Your task to perform on an android device: stop showing notifications on the lock screen Image 0: 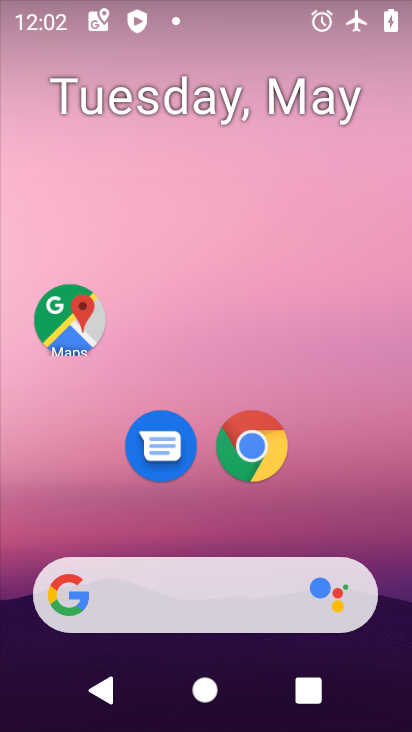
Step 0: drag from (321, 513) to (293, 182)
Your task to perform on an android device: stop showing notifications on the lock screen Image 1: 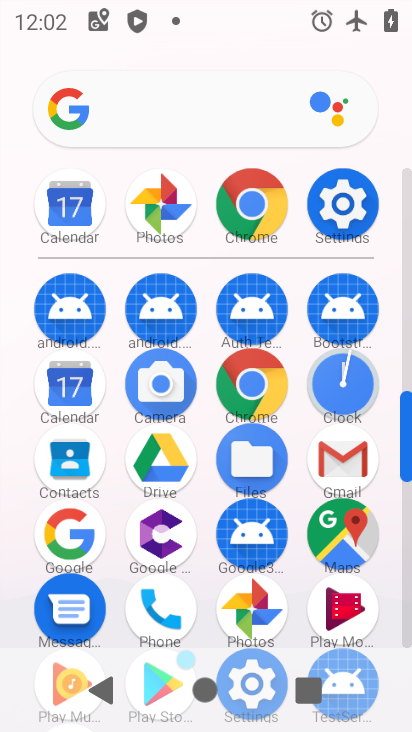
Step 1: click (356, 202)
Your task to perform on an android device: stop showing notifications on the lock screen Image 2: 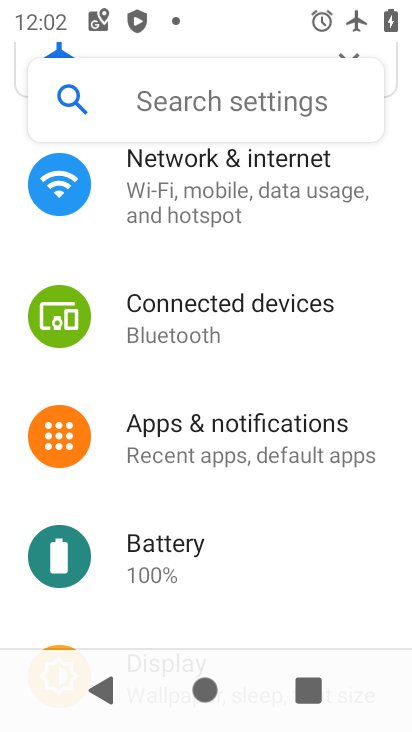
Step 2: drag from (234, 198) to (160, 552)
Your task to perform on an android device: stop showing notifications on the lock screen Image 3: 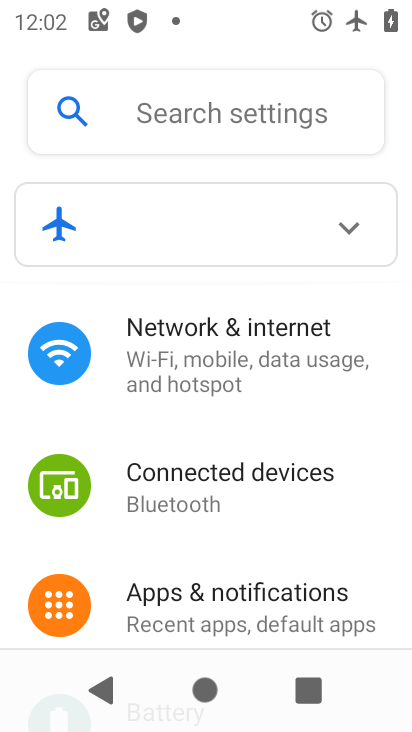
Step 3: drag from (165, 548) to (165, 372)
Your task to perform on an android device: stop showing notifications on the lock screen Image 4: 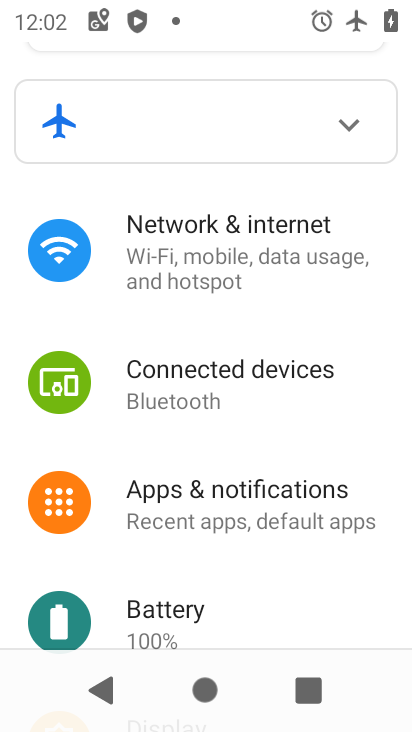
Step 4: click (140, 501)
Your task to perform on an android device: stop showing notifications on the lock screen Image 5: 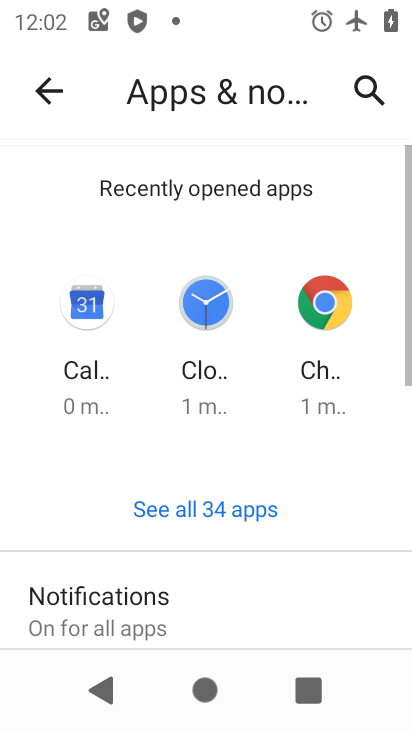
Step 5: drag from (194, 586) to (320, 380)
Your task to perform on an android device: stop showing notifications on the lock screen Image 6: 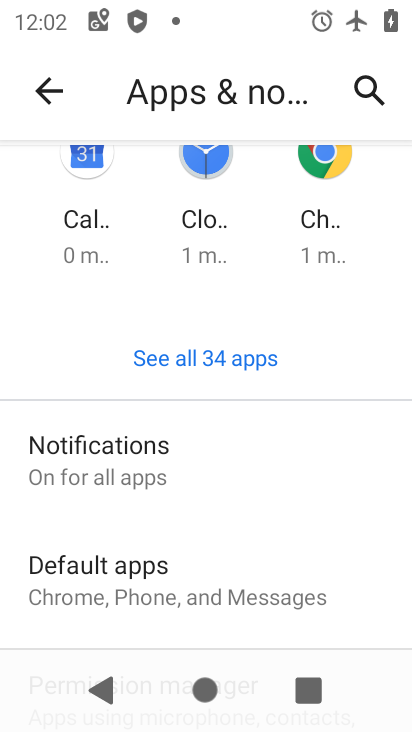
Step 6: click (114, 455)
Your task to perform on an android device: stop showing notifications on the lock screen Image 7: 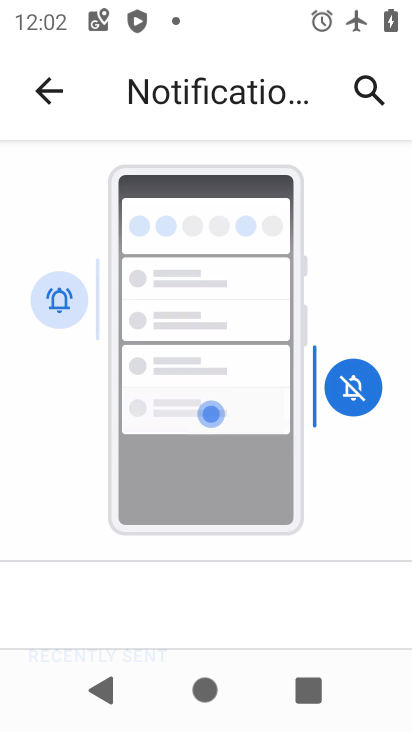
Step 7: drag from (234, 566) to (322, 215)
Your task to perform on an android device: stop showing notifications on the lock screen Image 8: 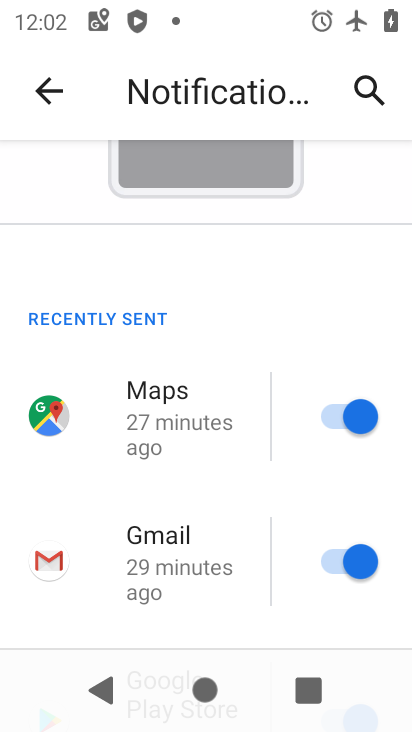
Step 8: drag from (190, 613) to (239, 283)
Your task to perform on an android device: stop showing notifications on the lock screen Image 9: 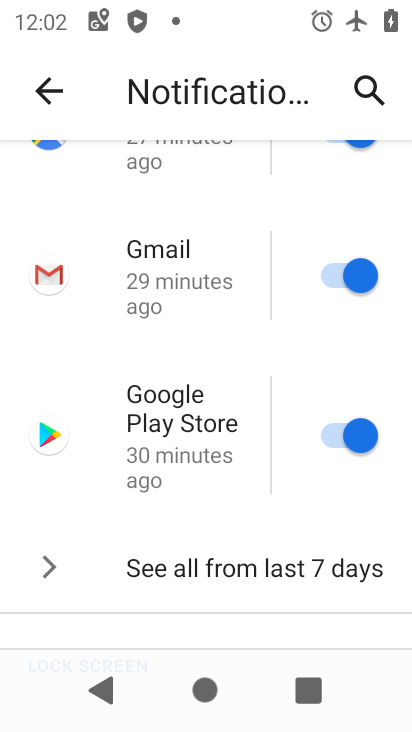
Step 9: drag from (180, 567) to (214, 381)
Your task to perform on an android device: stop showing notifications on the lock screen Image 10: 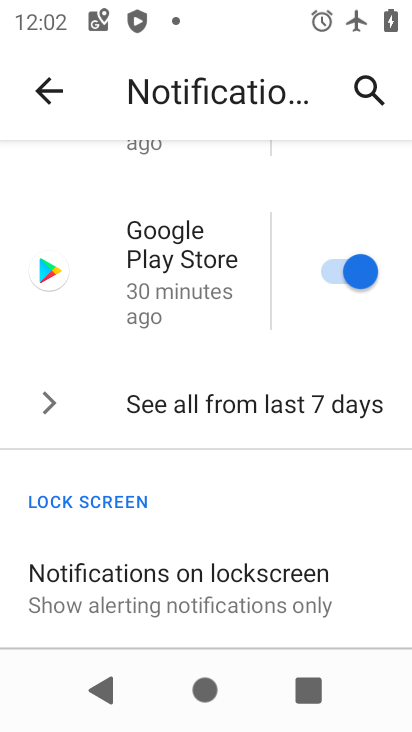
Step 10: click (202, 591)
Your task to perform on an android device: stop showing notifications on the lock screen Image 11: 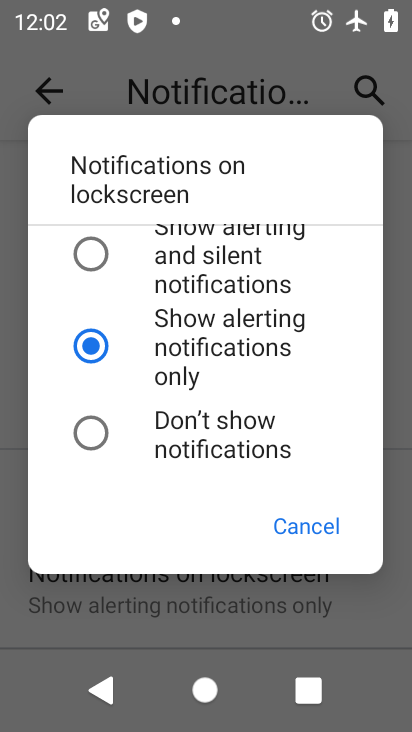
Step 11: click (194, 452)
Your task to perform on an android device: stop showing notifications on the lock screen Image 12: 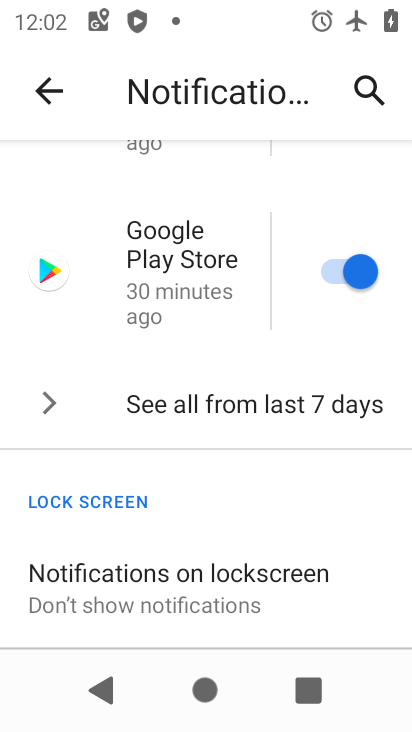
Step 12: task complete